Your task to perform on an android device: Go to eBay Image 0: 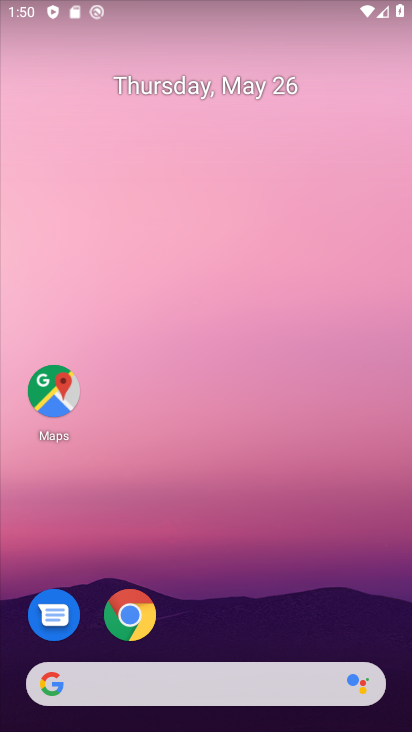
Step 0: press home button
Your task to perform on an android device: Go to eBay Image 1: 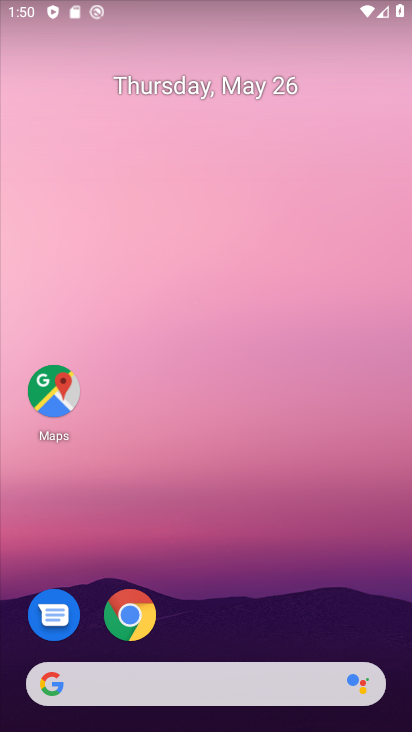
Step 1: click (125, 608)
Your task to perform on an android device: Go to eBay Image 2: 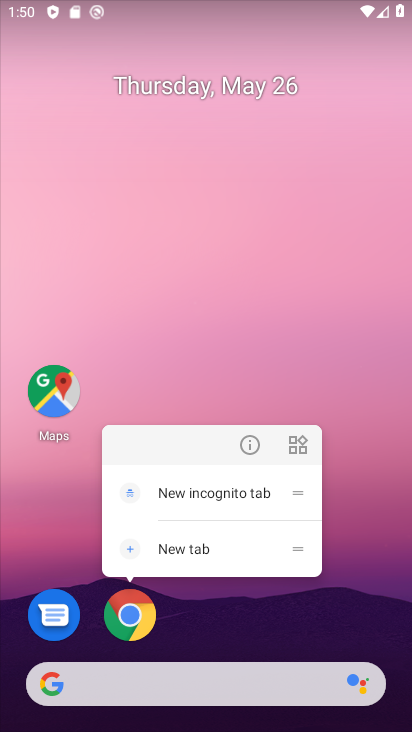
Step 2: click (125, 608)
Your task to perform on an android device: Go to eBay Image 3: 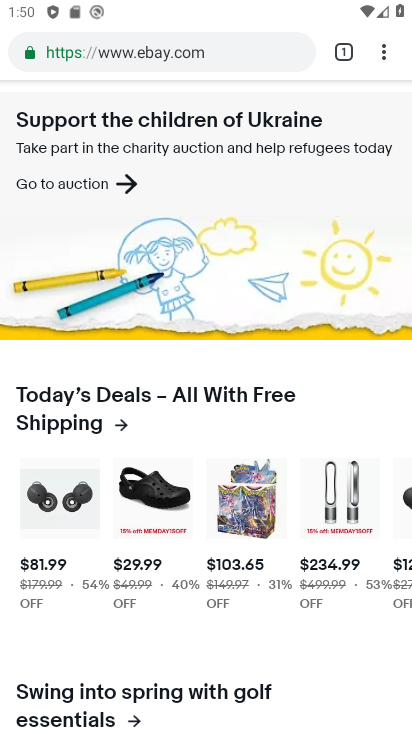
Step 3: task complete